Your task to perform on an android device: Open Google Chrome Image 0: 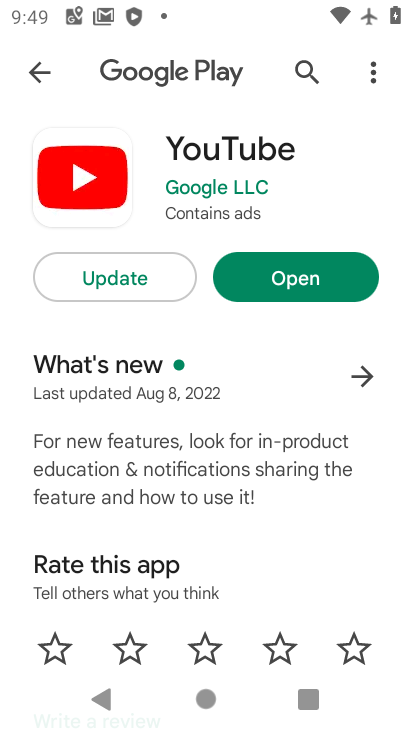
Step 0: press home button
Your task to perform on an android device: Open Google Chrome Image 1: 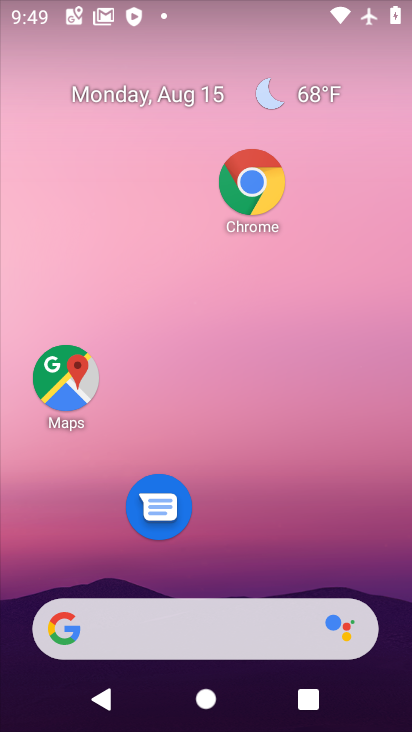
Step 1: drag from (304, 560) to (308, 58)
Your task to perform on an android device: Open Google Chrome Image 2: 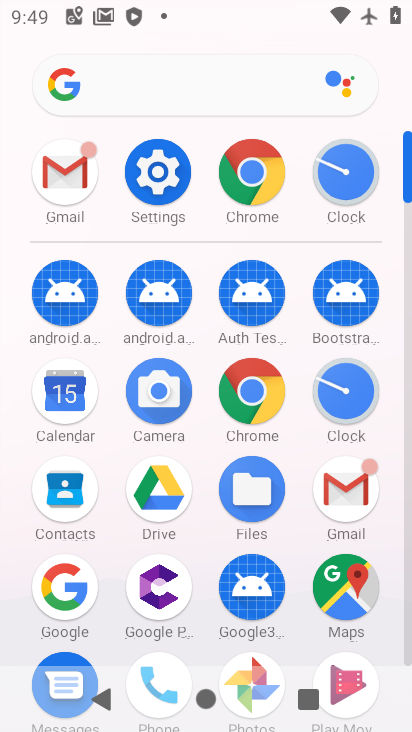
Step 2: click (233, 182)
Your task to perform on an android device: Open Google Chrome Image 3: 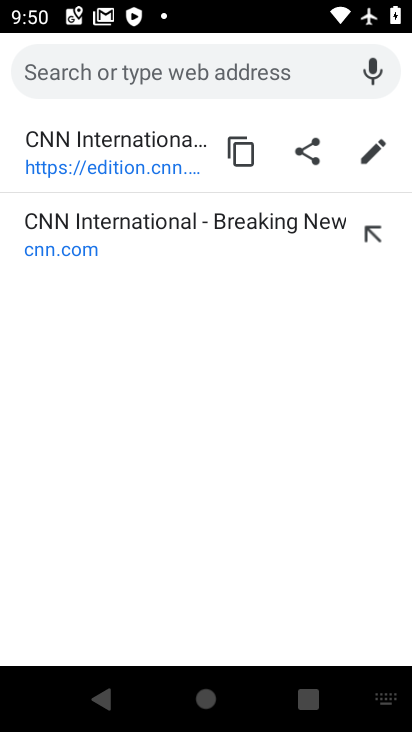
Step 3: task complete